Your task to perform on an android device: check google app version Image 0: 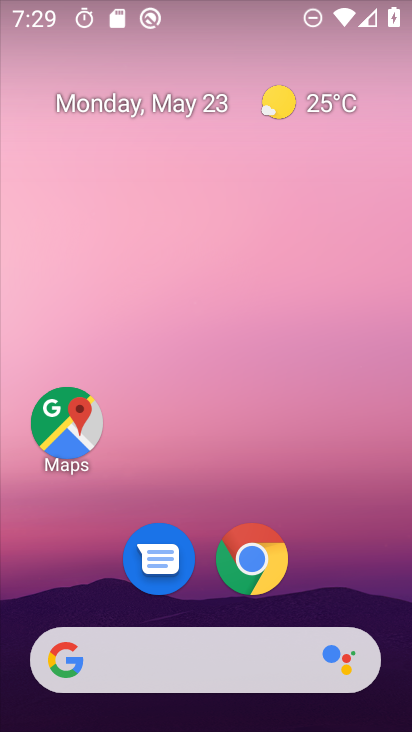
Step 0: drag from (397, 660) to (253, 54)
Your task to perform on an android device: check google app version Image 1: 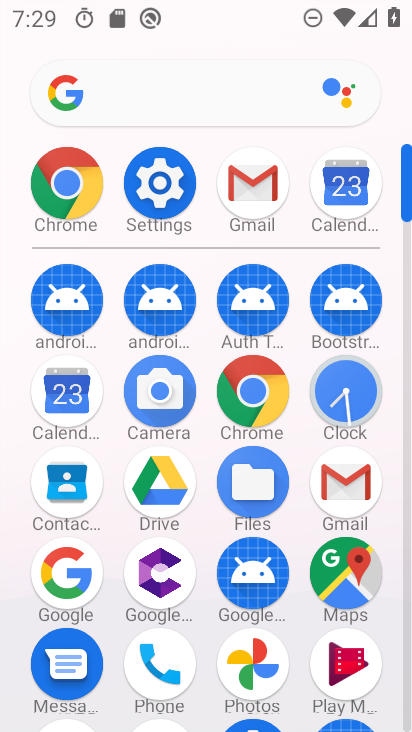
Step 1: click (66, 602)
Your task to perform on an android device: check google app version Image 2: 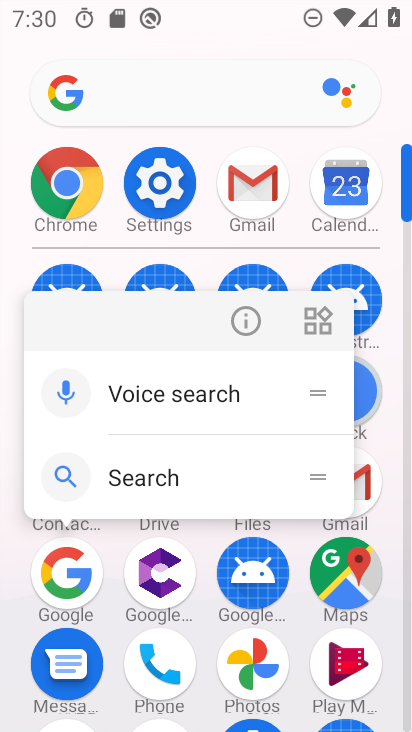
Step 2: click (246, 320)
Your task to perform on an android device: check google app version Image 3: 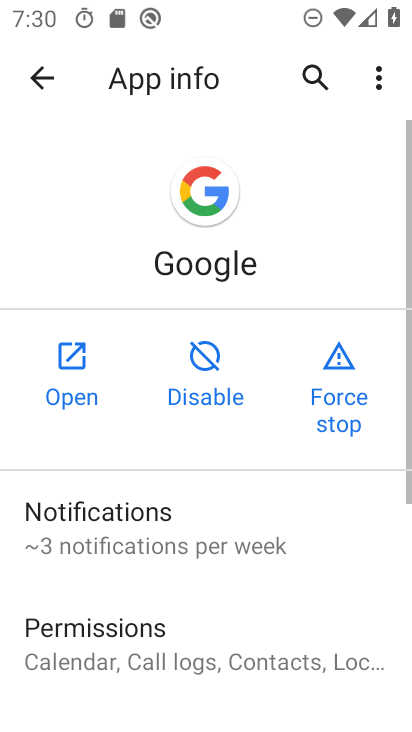
Step 3: drag from (206, 678) to (250, 6)
Your task to perform on an android device: check google app version Image 4: 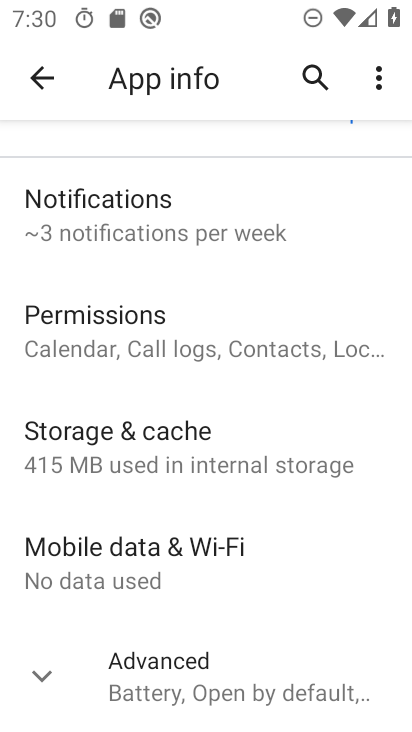
Step 4: click (72, 686)
Your task to perform on an android device: check google app version Image 5: 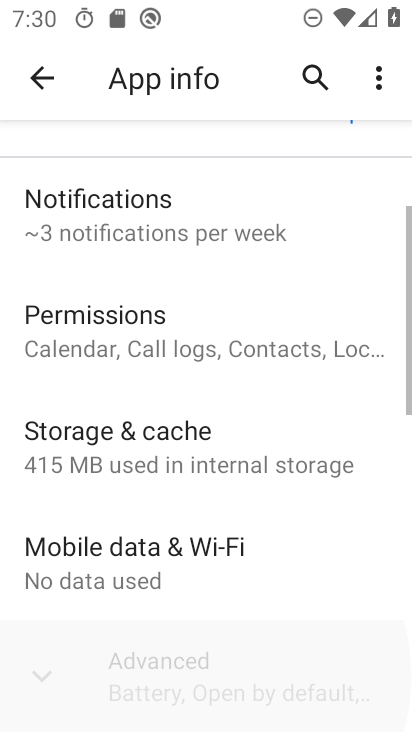
Step 5: task complete